Your task to perform on an android device: open app "Chime – Mobile Banking" (install if not already installed), go to login, and select forgot password Image 0: 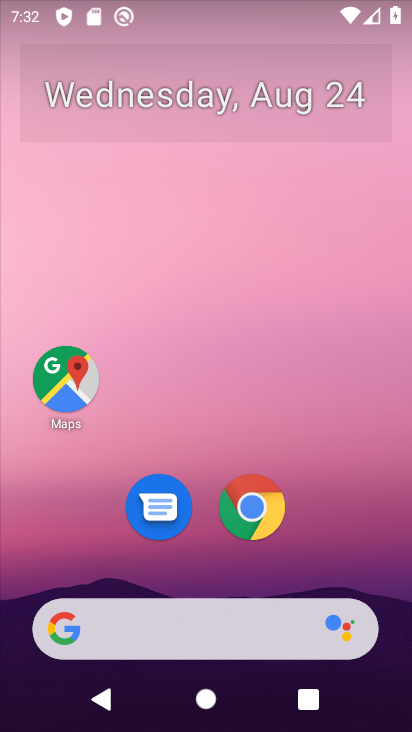
Step 0: press home button
Your task to perform on an android device: open app "Chime – Mobile Banking" (install if not already installed), go to login, and select forgot password Image 1: 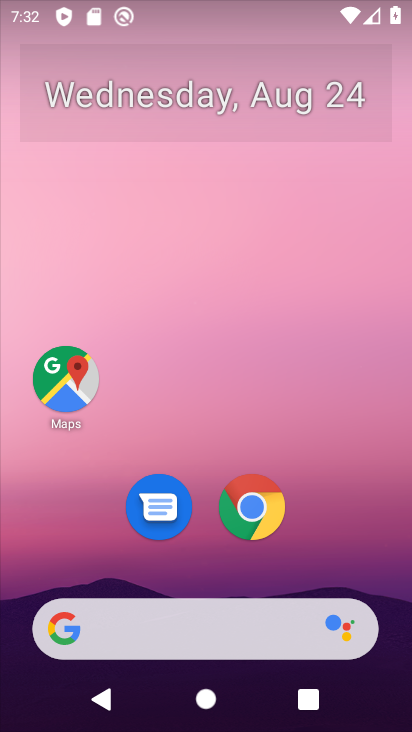
Step 1: drag from (366, 547) to (351, 77)
Your task to perform on an android device: open app "Chime – Mobile Banking" (install if not already installed), go to login, and select forgot password Image 2: 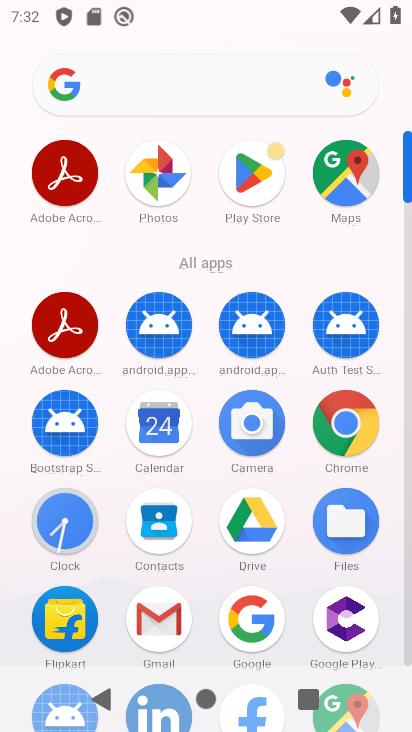
Step 2: click (266, 178)
Your task to perform on an android device: open app "Chime – Mobile Banking" (install if not already installed), go to login, and select forgot password Image 3: 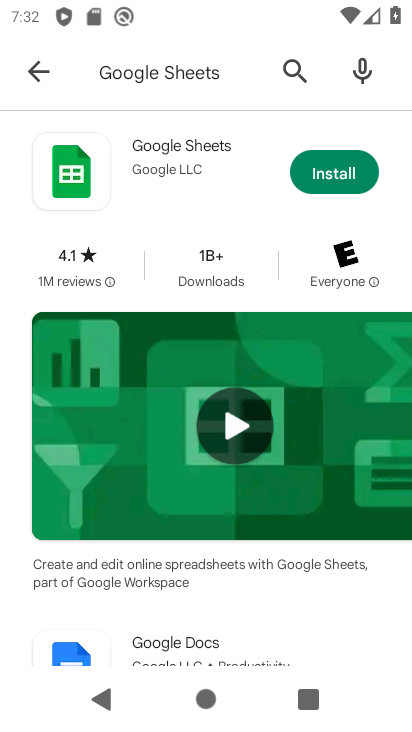
Step 3: press back button
Your task to perform on an android device: open app "Chime – Mobile Banking" (install if not already installed), go to login, and select forgot password Image 4: 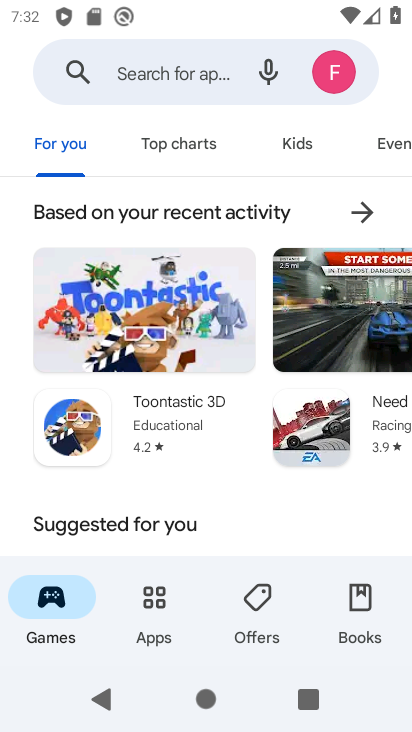
Step 4: click (141, 71)
Your task to perform on an android device: open app "Chime – Mobile Banking" (install if not already installed), go to login, and select forgot password Image 5: 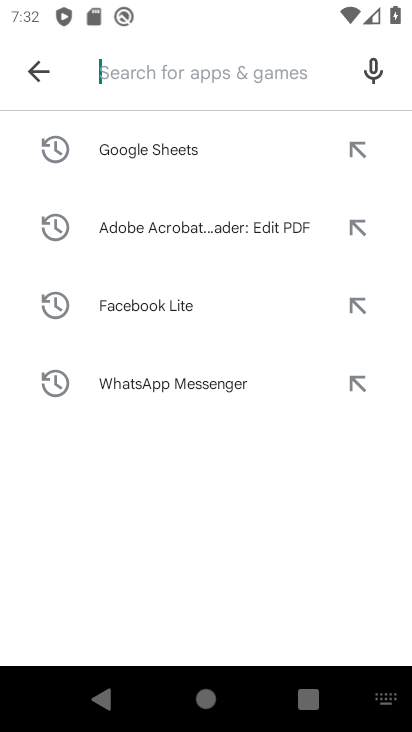
Step 5: type "Chime – Mobile Banking"
Your task to perform on an android device: open app "Chime – Mobile Banking" (install if not already installed), go to login, and select forgot password Image 6: 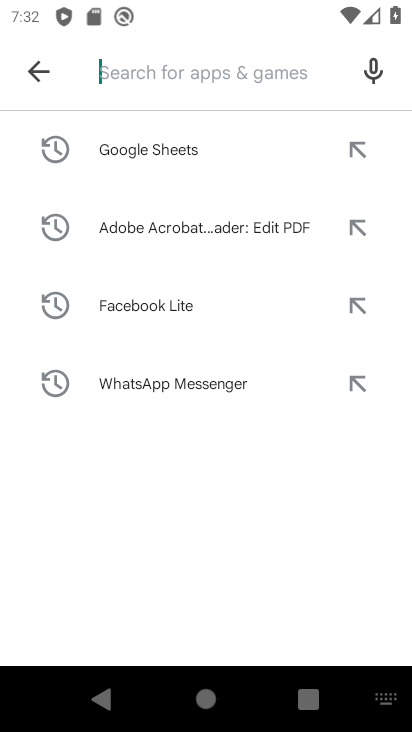
Step 6: press enter
Your task to perform on an android device: open app "Chime – Mobile Banking" (install if not already installed), go to login, and select forgot password Image 7: 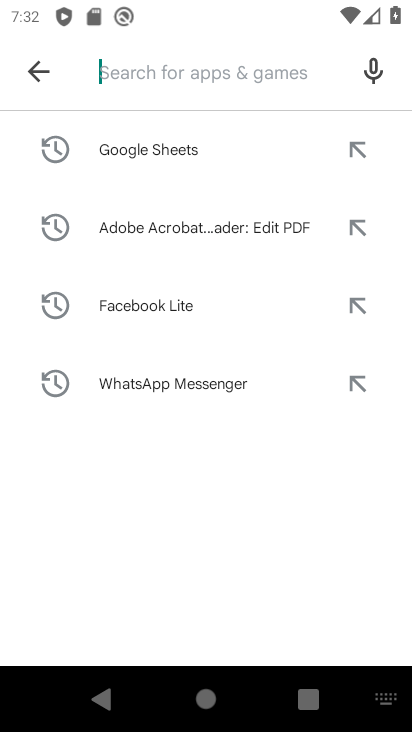
Step 7: type "Chime – Mobile Banking"
Your task to perform on an android device: open app "Chime – Mobile Banking" (install if not already installed), go to login, and select forgot password Image 8: 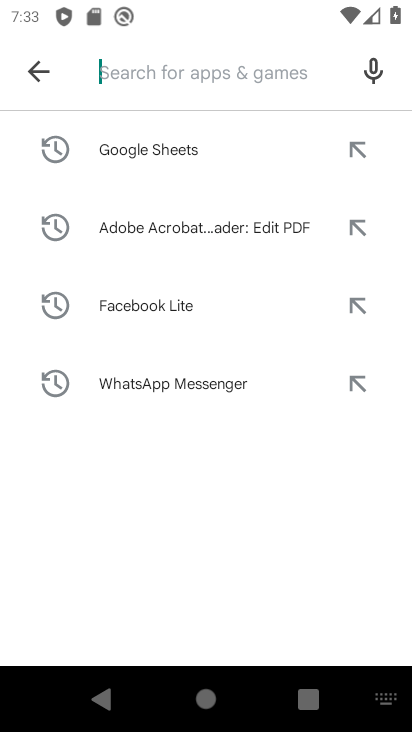
Step 8: task complete